Your task to perform on an android device: turn off picture-in-picture Image 0: 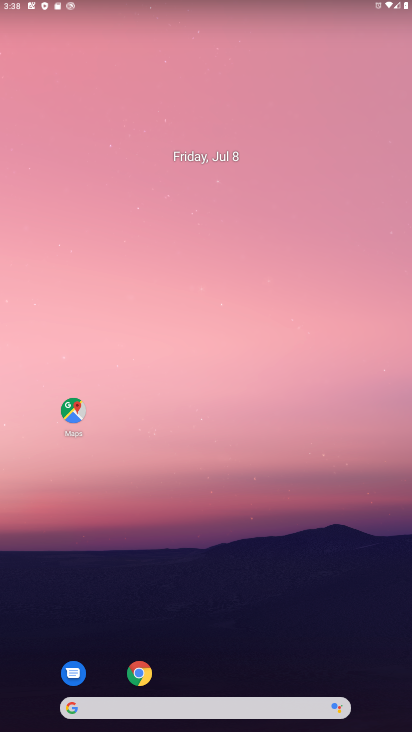
Step 0: drag from (194, 665) to (177, 139)
Your task to perform on an android device: turn off picture-in-picture Image 1: 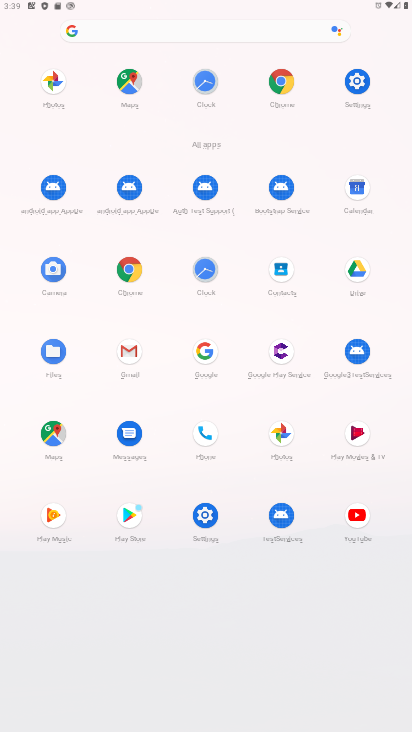
Step 1: click (352, 74)
Your task to perform on an android device: turn off picture-in-picture Image 2: 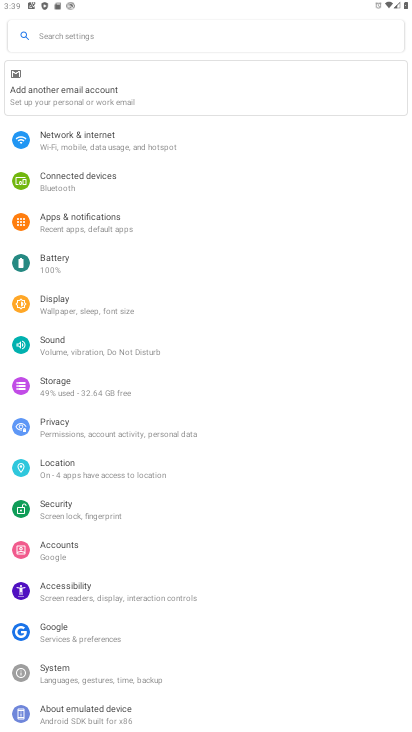
Step 2: click (129, 214)
Your task to perform on an android device: turn off picture-in-picture Image 3: 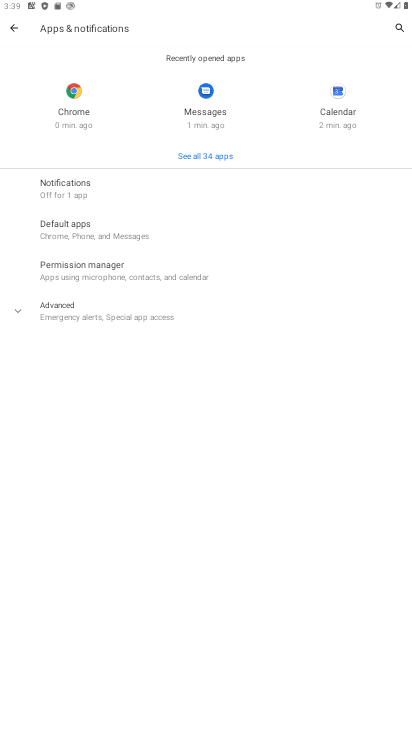
Step 3: click (100, 311)
Your task to perform on an android device: turn off picture-in-picture Image 4: 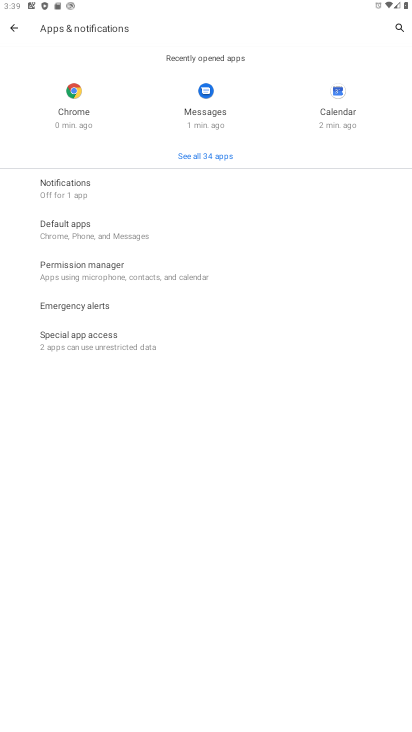
Step 4: click (93, 341)
Your task to perform on an android device: turn off picture-in-picture Image 5: 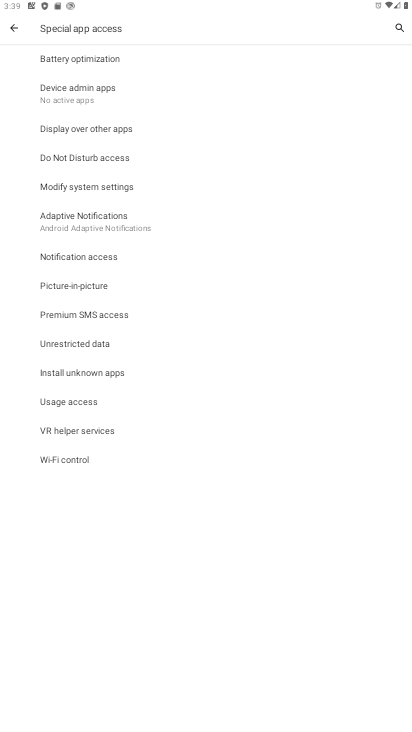
Step 5: click (88, 281)
Your task to perform on an android device: turn off picture-in-picture Image 6: 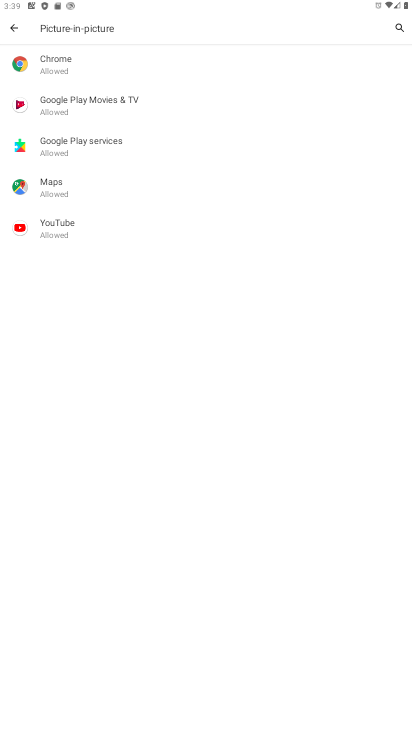
Step 6: click (73, 222)
Your task to perform on an android device: turn off picture-in-picture Image 7: 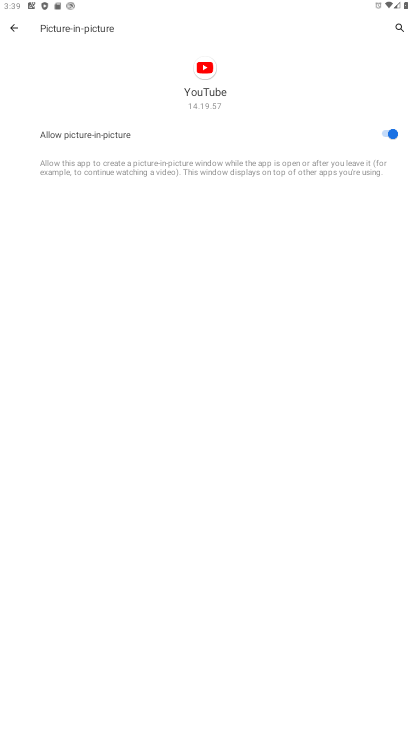
Step 7: click (390, 132)
Your task to perform on an android device: turn off picture-in-picture Image 8: 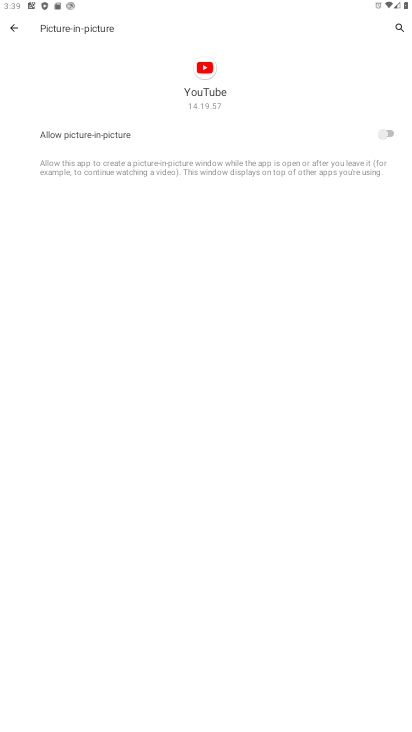
Step 8: task complete